Your task to perform on an android device: change the clock display to analog Image 0: 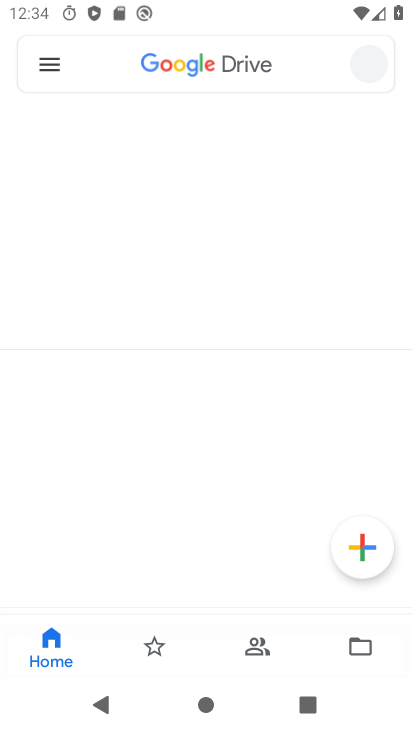
Step 0: click (42, 324)
Your task to perform on an android device: change the clock display to analog Image 1: 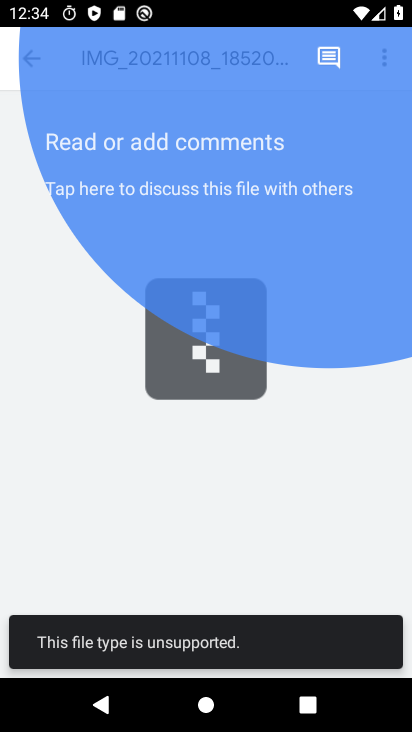
Step 1: press home button
Your task to perform on an android device: change the clock display to analog Image 2: 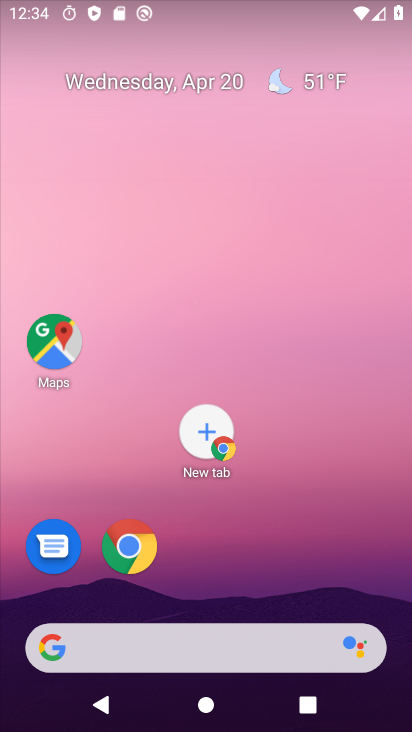
Step 2: drag from (281, 548) to (178, 157)
Your task to perform on an android device: change the clock display to analog Image 3: 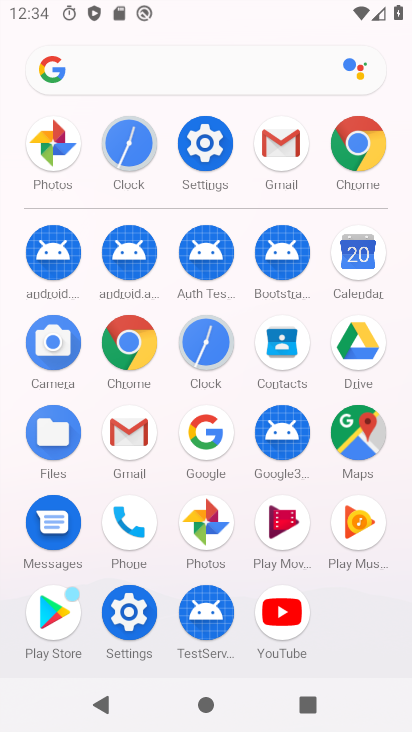
Step 3: click (139, 131)
Your task to perform on an android device: change the clock display to analog Image 4: 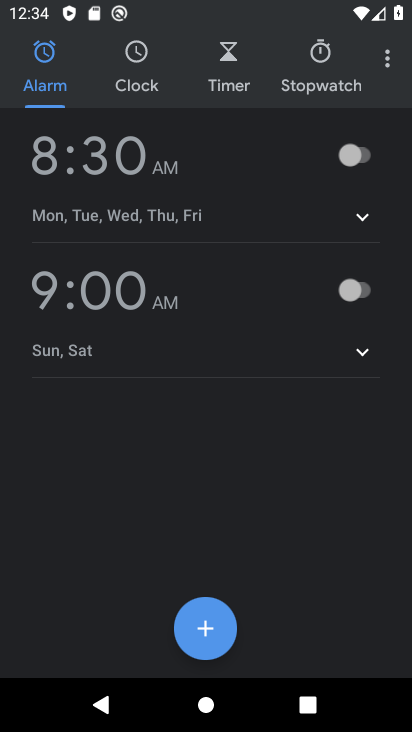
Step 4: click (388, 49)
Your task to perform on an android device: change the clock display to analog Image 5: 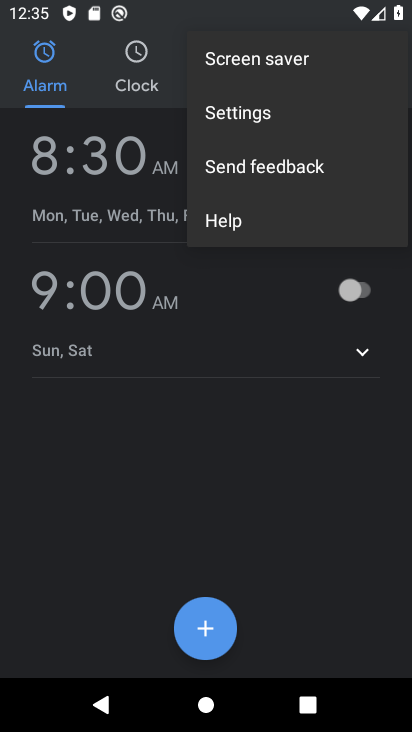
Step 5: click (258, 130)
Your task to perform on an android device: change the clock display to analog Image 6: 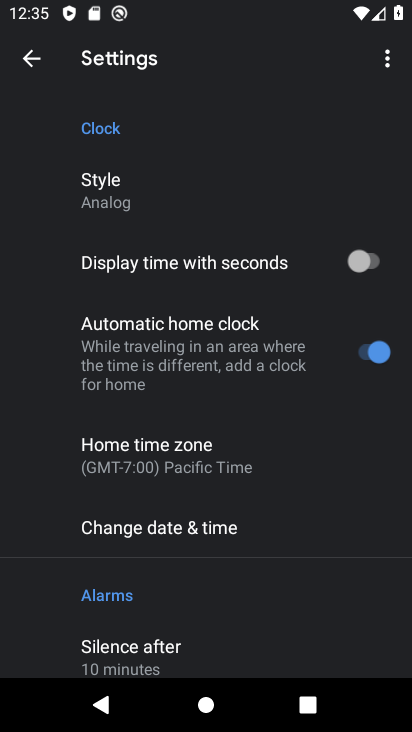
Step 6: click (144, 207)
Your task to perform on an android device: change the clock display to analog Image 7: 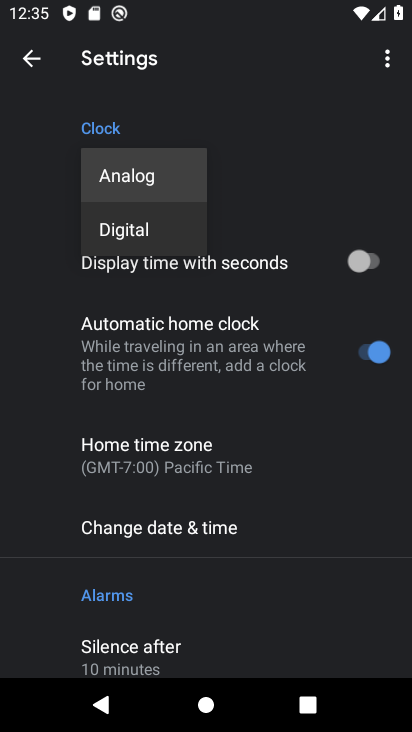
Step 7: task complete